Your task to perform on an android device: Go to display settings Image 0: 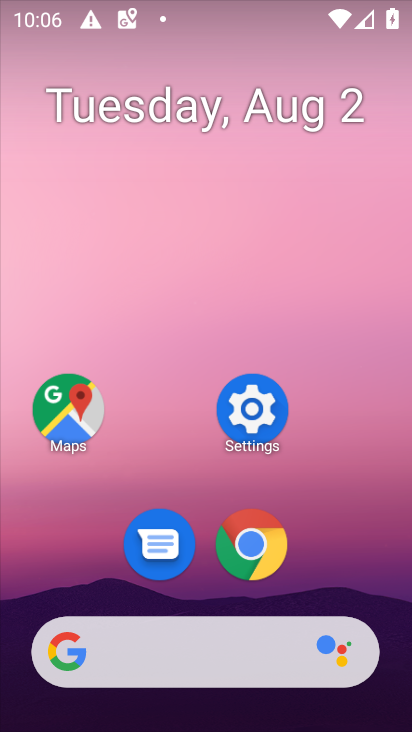
Step 0: click (267, 411)
Your task to perform on an android device: Go to display settings Image 1: 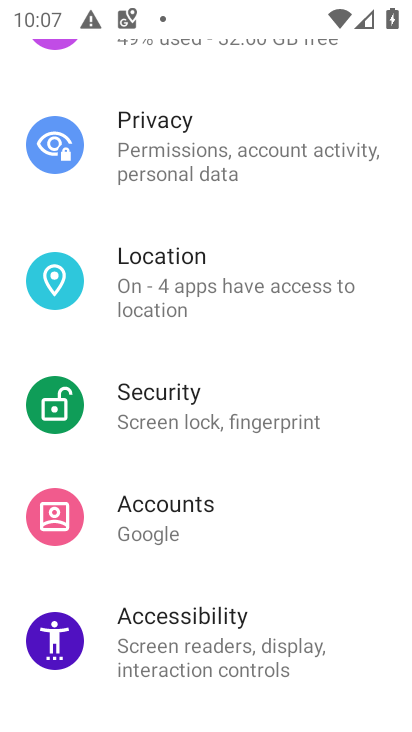
Step 1: drag from (263, 211) to (229, 660)
Your task to perform on an android device: Go to display settings Image 2: 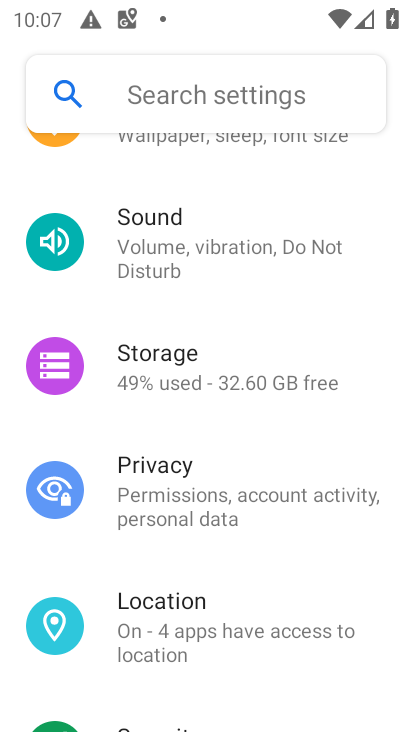
Step 2: drag from (277, 194) to (261, 603)
Your task to perform on an android device: Go to display settings Image 3: 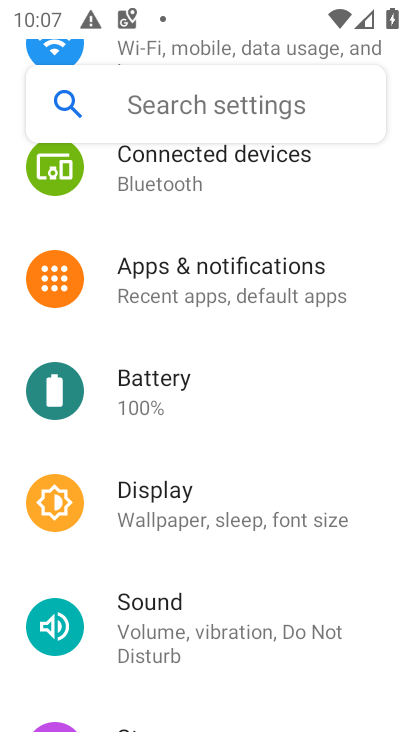
Step 3: click (177, 503)
Your task to perform on an android device: Go to display settings Image 4: 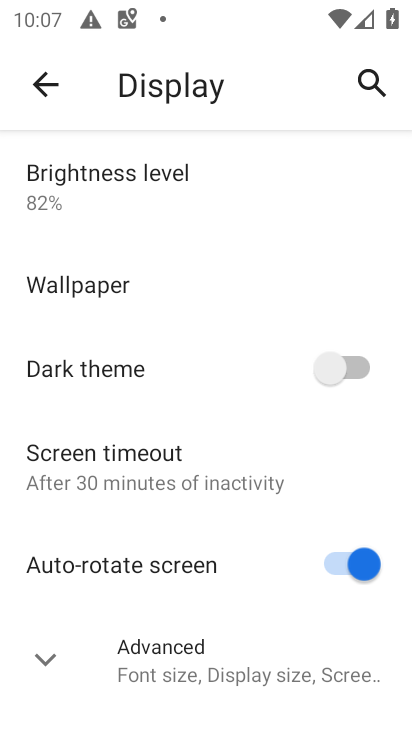
Step 4: task complete